Your task to perform on an android device: What's on my calendar tomorrow? Image 0: 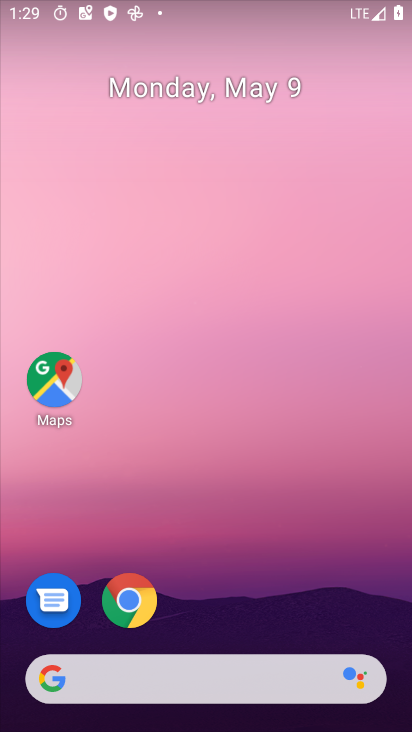
Step 0: drag from (182, 643) to (187, 395)
Your task to perform on an android device: What's on my calendar tomorrow? Image 1: 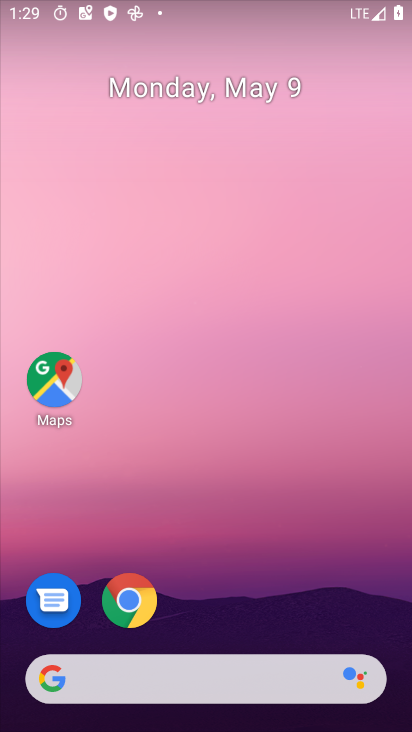
Step 1: drag from (250, 628) to (211, 177)
Your task to perform on an android device: What's on my calendar tomorrow? Image 2: 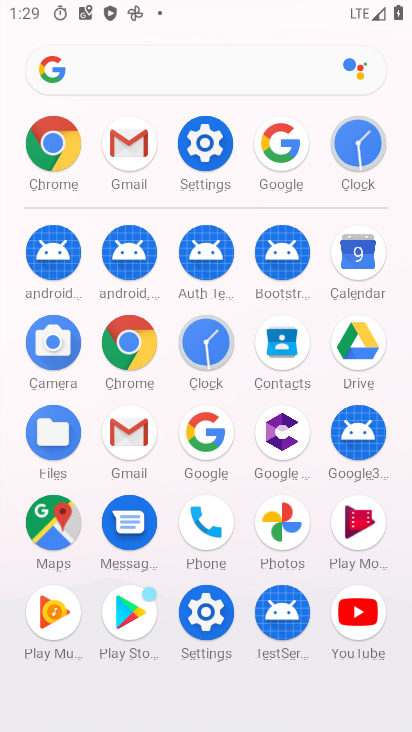
Step 2: click (365, 264)
Your task to perform on an android device: What's on my calendar tomorrow? Image 3: 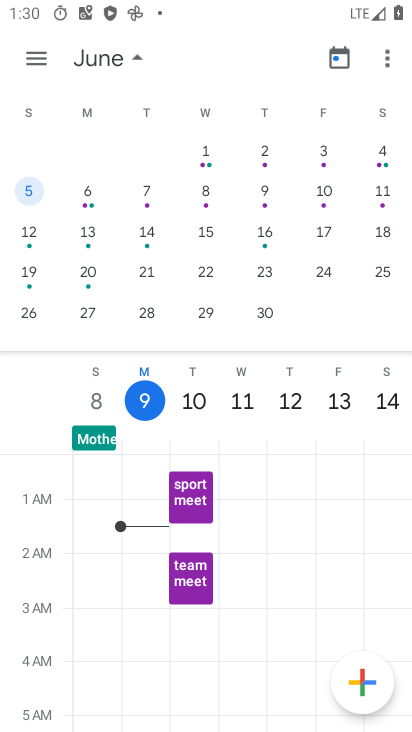
Step 3: drag from (51, 232) to (343, 246)
Your task to perform on an android device: What's on my calendar tomorrow? Image 4: 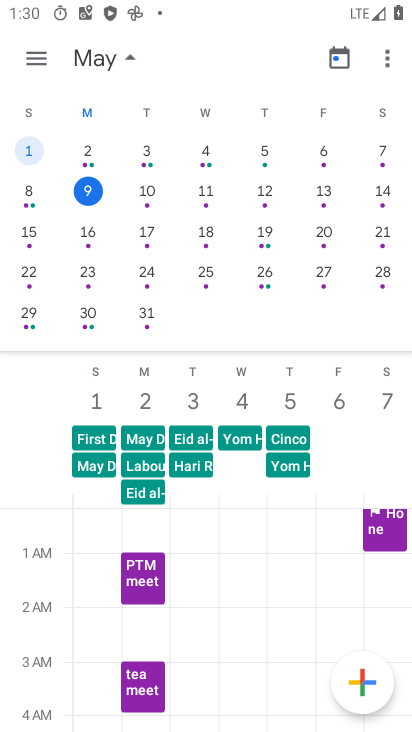
Step 4: click (139, 195)
Your task to perform on an android device: What's on my calendar tomorrow? Image 5: 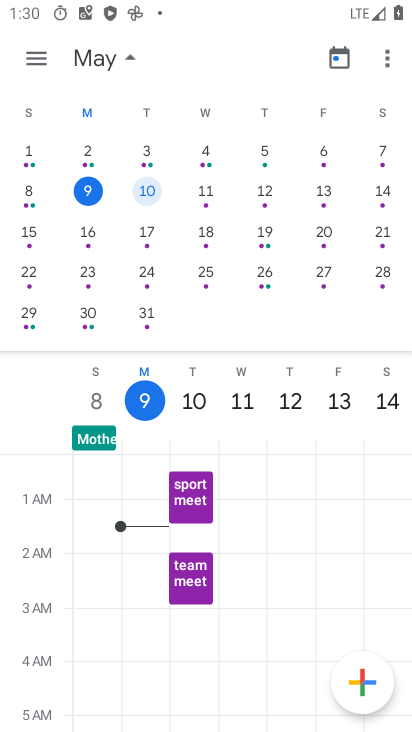
Step 5: click (27, 62)
Your task to perform on an android device: What's on my calendar tomorrow? Image 6: 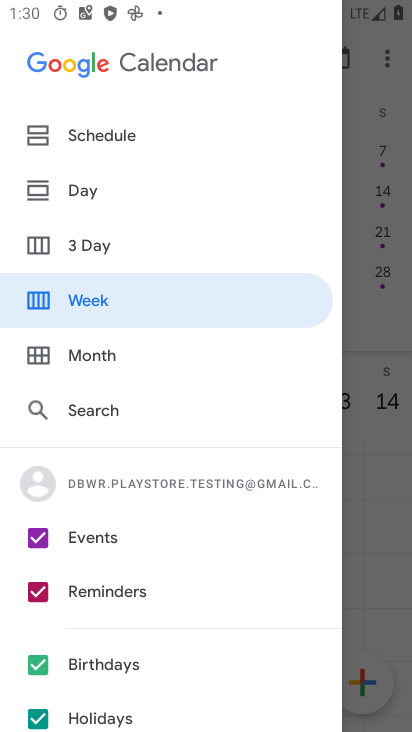
Step 6: click (93, 202)
Your task to perform on an android device: What's on my calendar tomorrow? Image 7: 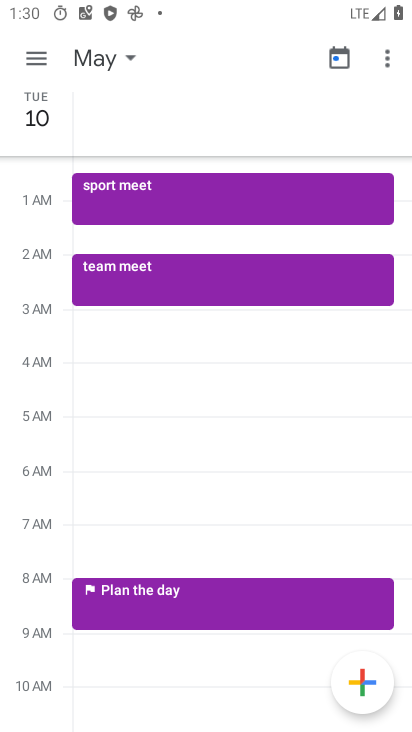
Step 7: task complete